Your task to perform on an android device: see sites visited before in the chrome app Image 0: 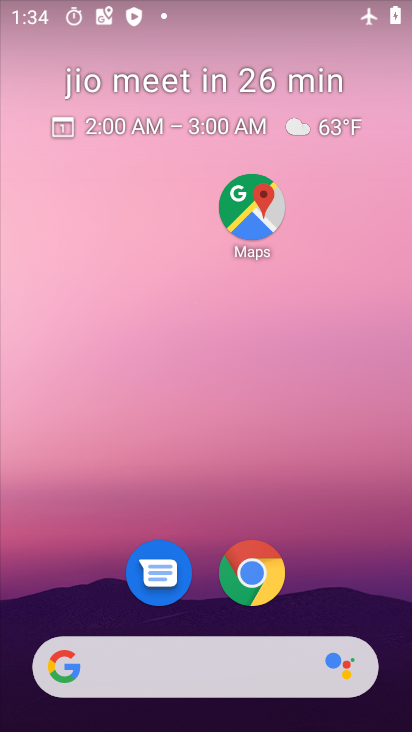
Step 0: drag from (179, 469) to (107, 41)
Your task to perform on an android device: see sites visited before in the chrome app Image 1: 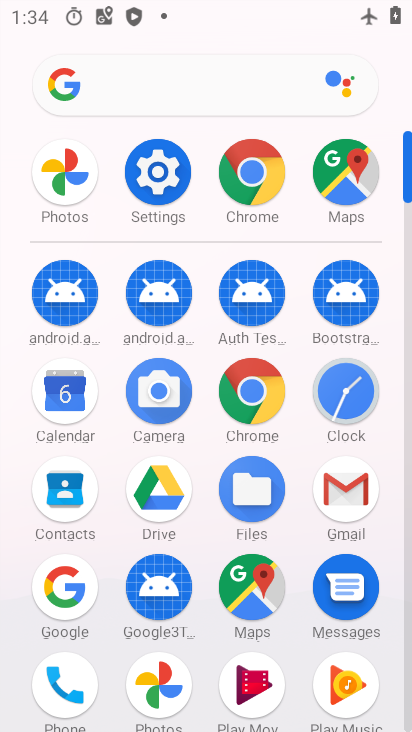
Step 1: click (258, 404)
Your task to perform on an android device: see sites visited before in the chrome app Image 2: 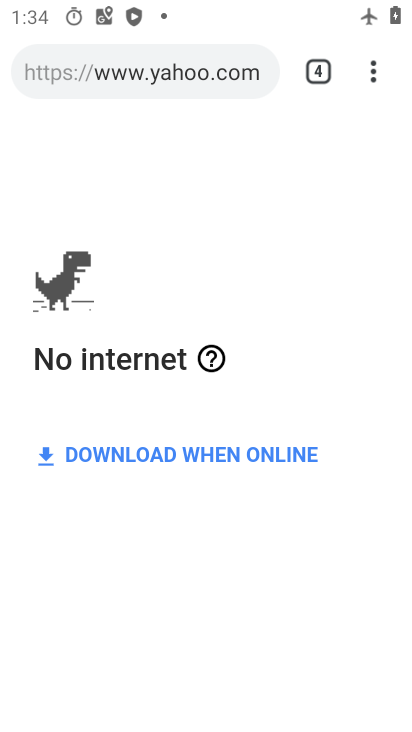
Step 2: drag from (370, 0) to (360, 484)
Your task to perform on an android device: see sites visited before in the chrome app Image 3: 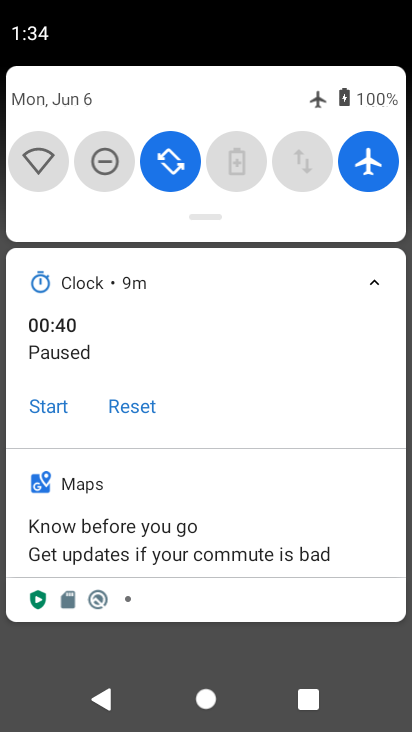
Step 3: click (364, 174)
Your task to perform on an android device: see sites visited before in the chrome app Image 4: 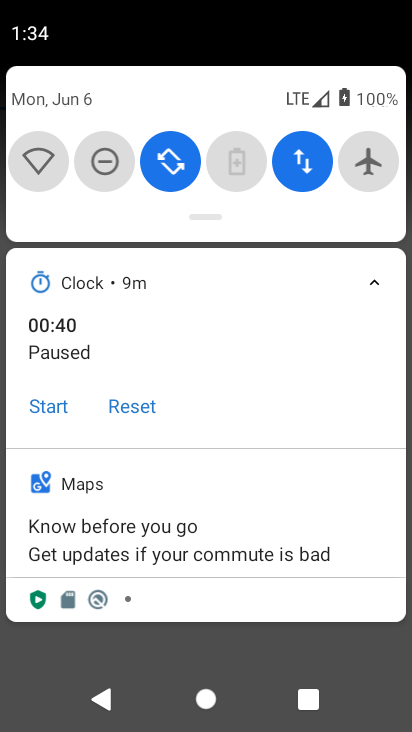
Step 4: task complete